Your task to perform on an android device: turn on wifi Image 0: 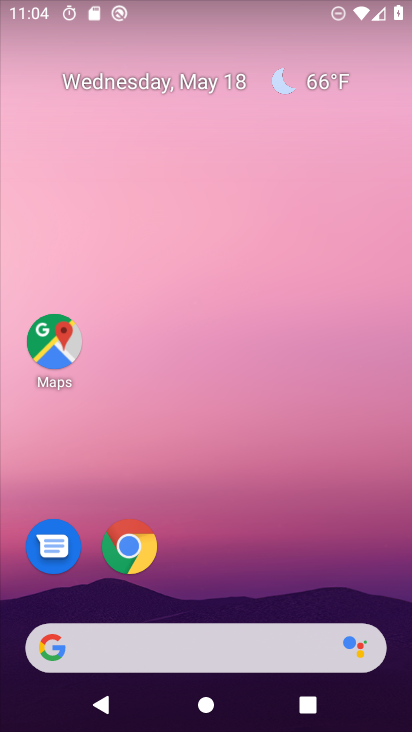
Step 0: drag from (215, 13) to (194, 542)
Your task to perform on an android device: turn on wifi Image 1: 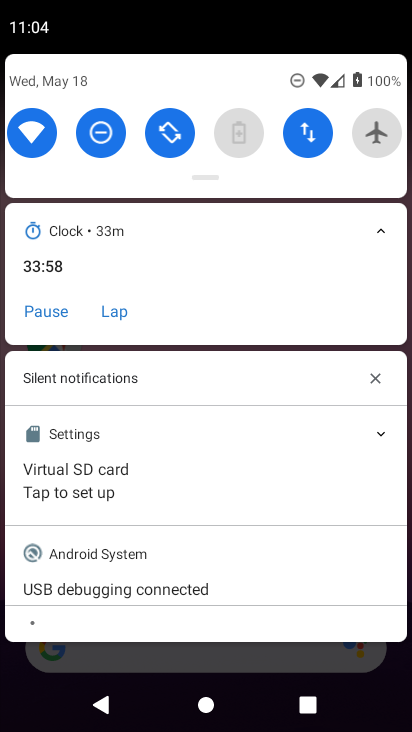
Step 1: task complete